Your task to perform on an android device: change the upload size in google photos Image 0: 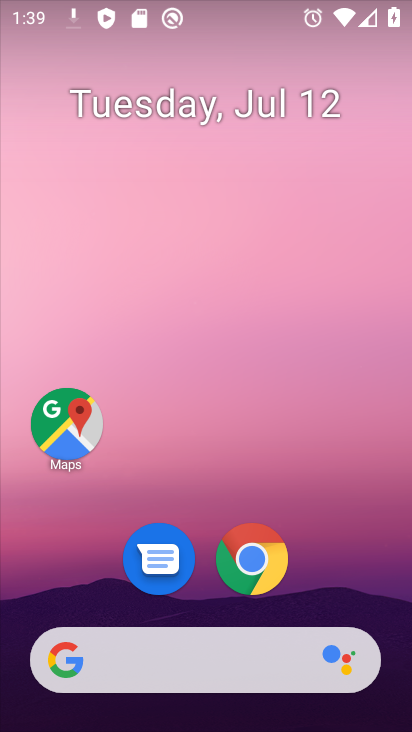
Step 0: drag from (371, 593) to (367, 140)
Your task to perform on an android device: change the upload size in google photos Image 1: 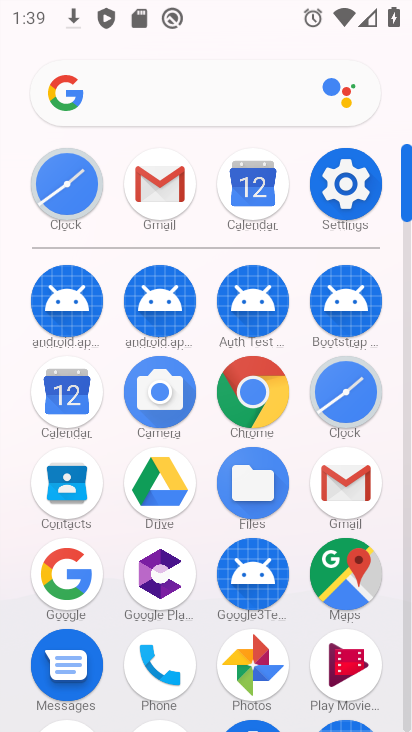
Step 1: click (254, 654)
Your task to perform on an android device: change the upload size in google photos Image 2: 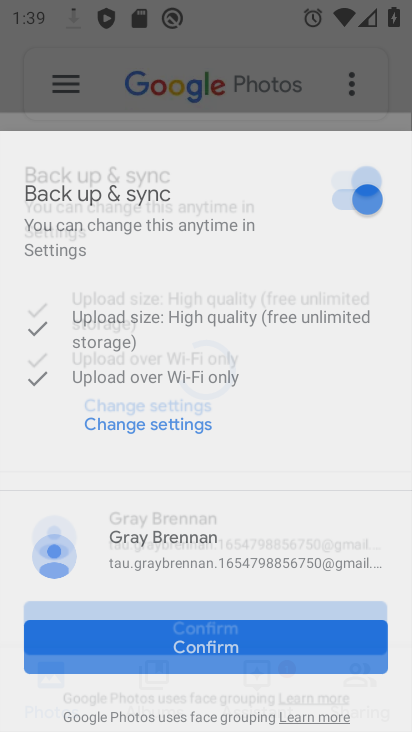
Step 2: click (273, 627)
Your task to perform on an android device: change the upload size in google photos Image 3: 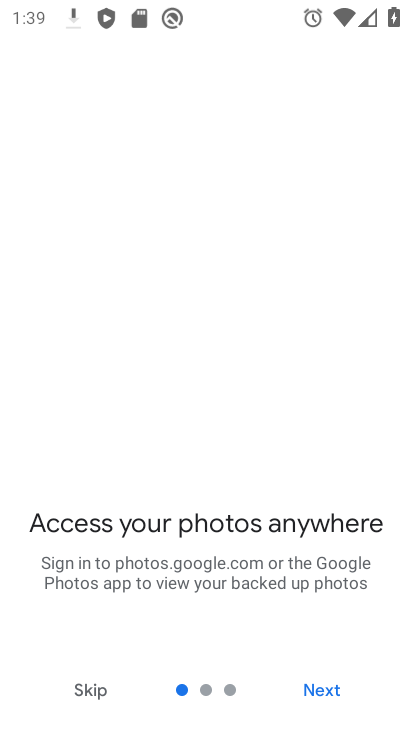
Step 3: click (320, 688)
Your task to perform on an android device: change the upload size in google photos Image 4: 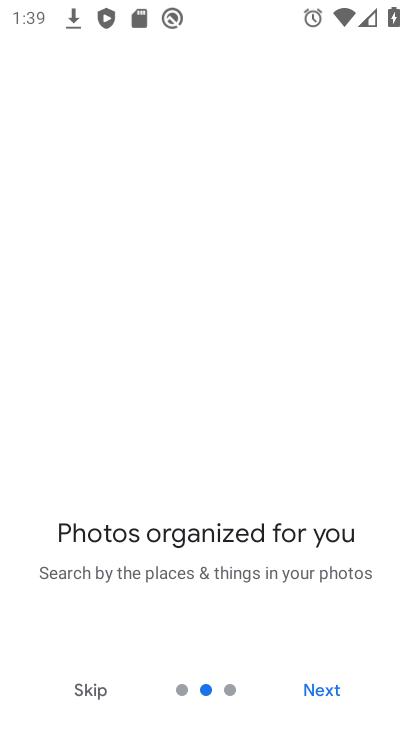
Step 4: click (320, 688)
Your task to perform on an android device: change the upload size in google photos Image 5: 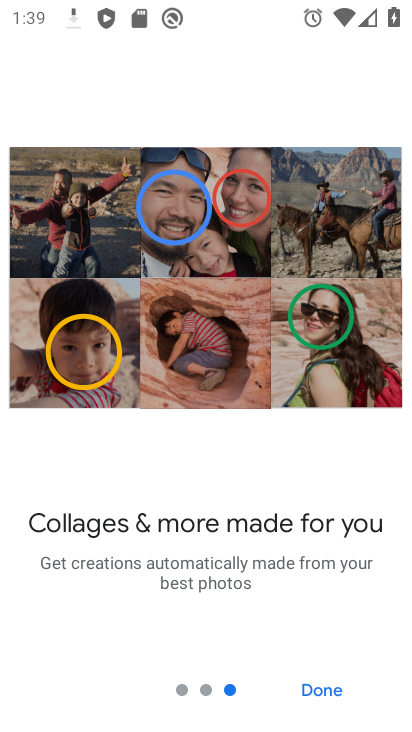
Step 5: click (320, 688)
Your task to perform on an android device: change the upload size in google photos Image 6: 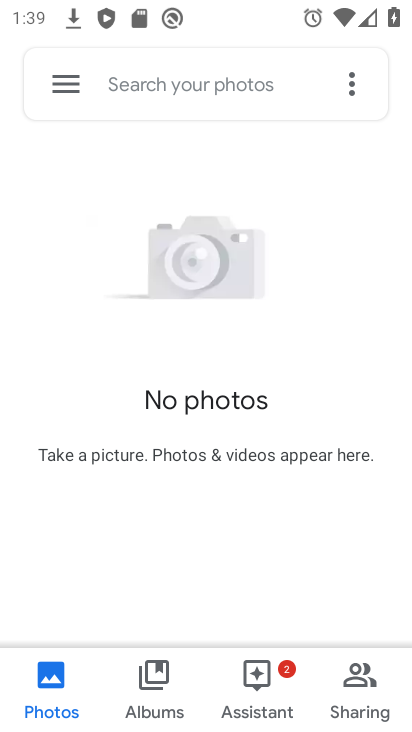
Step 6: click (76, 88)
Your task to perform on an android device: change the upload size in google photos Image 7: 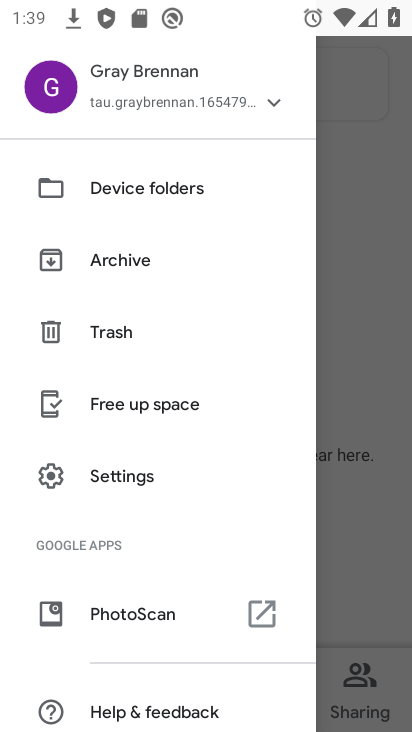
Step 7: click (175, 483)
Your task to perform on an android device: change the upload size in google photos Image 8: 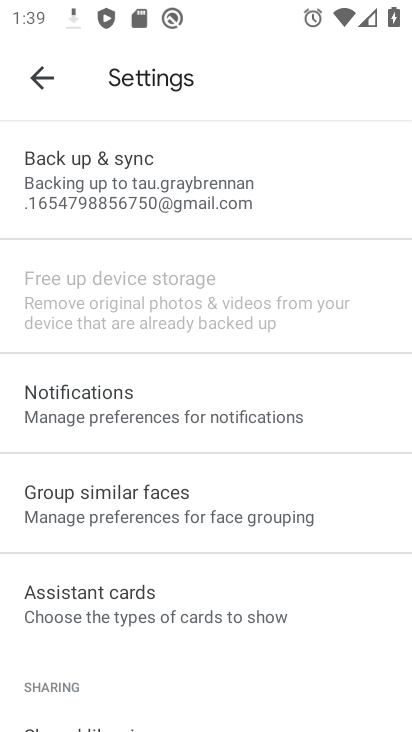
Step 8: drag from (333, 480) to (311, 264)
Your task to perform on an android device: change the upload size in google photos Image 9: 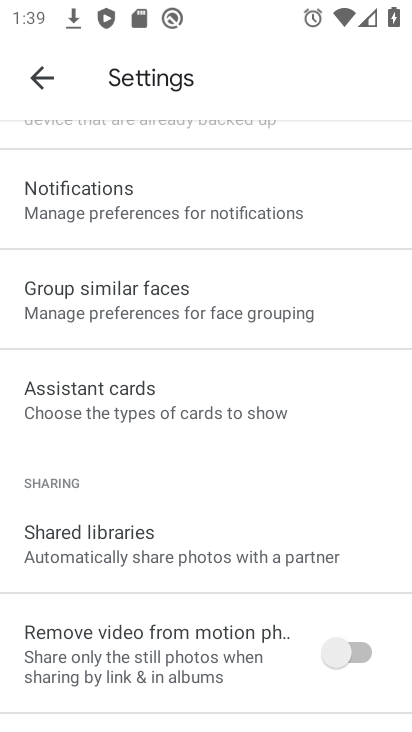
Step 9: drag from (329, 449) to (326, 249)
Your task to perform on an android device: change the upload size in google photos Image 10: 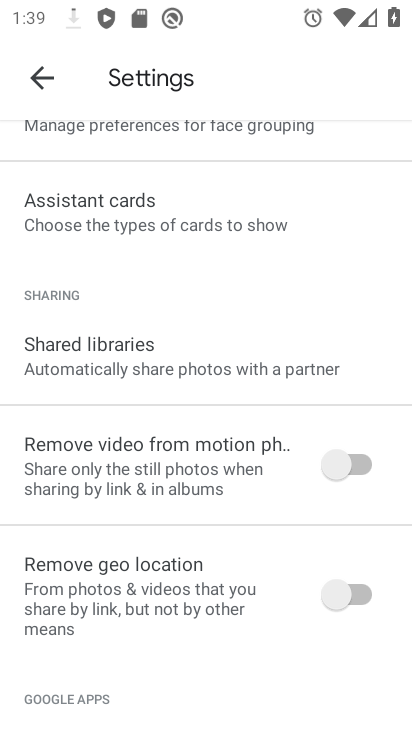
Step 10: drag from (289, 519) to (286, 305)
Your task to perform on an android device: change the upload size in google photos Image 11: 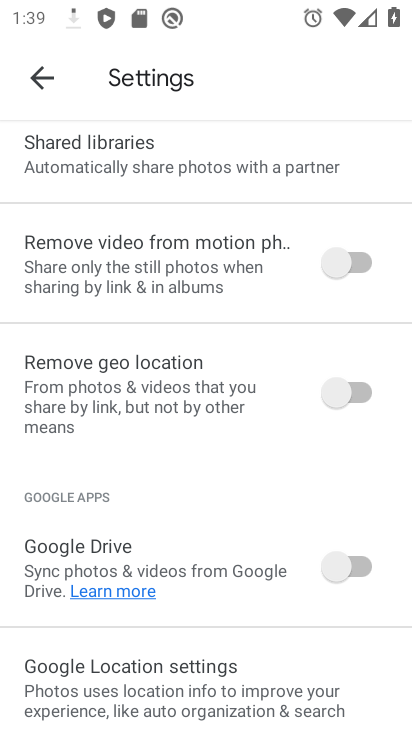
Step 11: drag from (279, 262) to (277, 393)
Your task to perform on an android device: change the upload size in google photos Image 12: 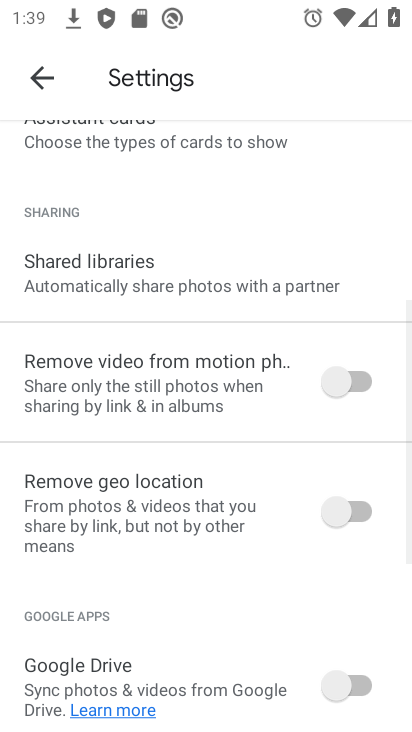
Step 12: drag from (261, 213) to (264, 374)
Your task to perform on an android device: change the upload size in google photos Image 13: 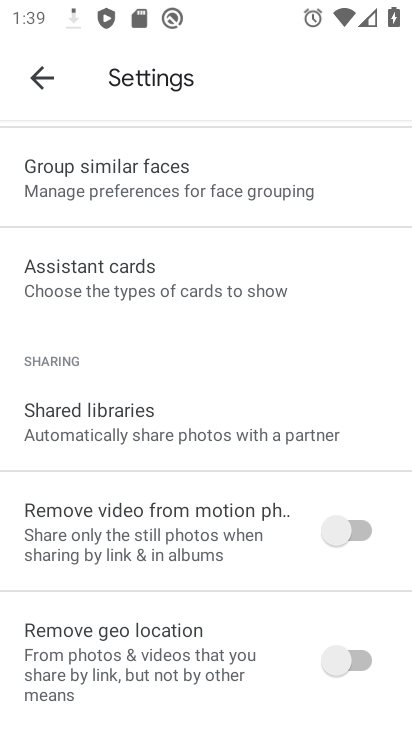
Step 13: drag from (289, 151) to (289, 396)
Your task to perform on an android device: change the upload size in google photos Image 14: 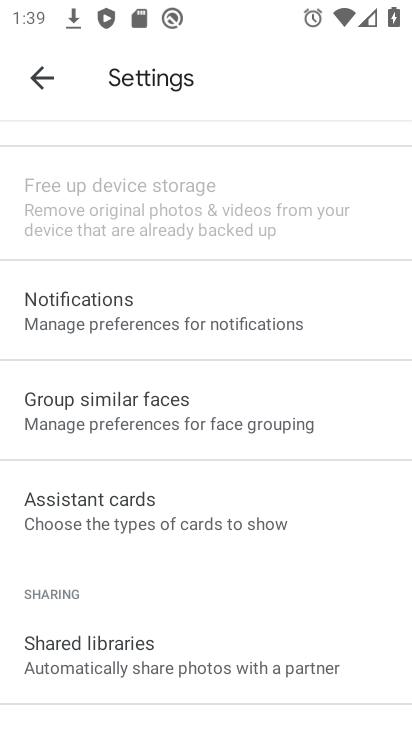
Step 14: drag from (251, 166) to (249, 391)
Your task to perform on an android device: change the upload size in google photos Image 15: 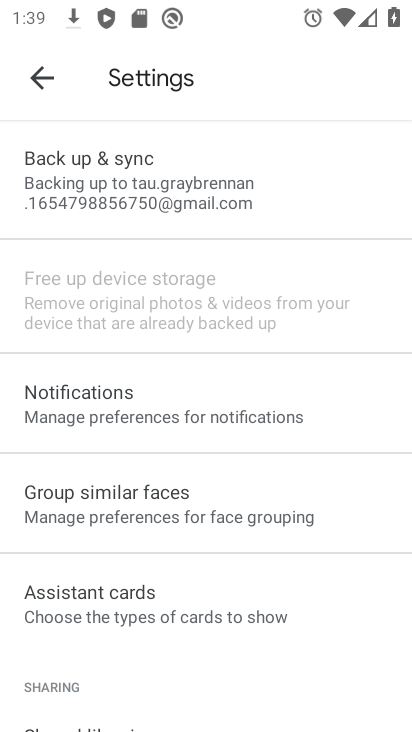
Step 15: click (154, 165)
Your task to perform on an android device: change the upload size in google photos Image 16: 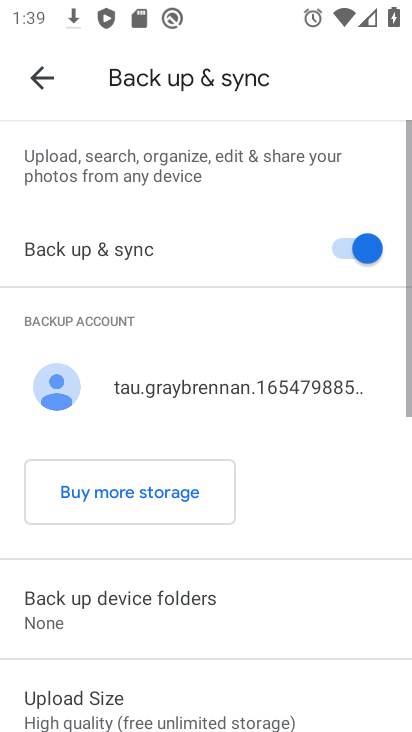
Step 16: drag from (264, 451) to (270, 253)
Your task to perform on an android device: change the upload size in google photos Image 17: 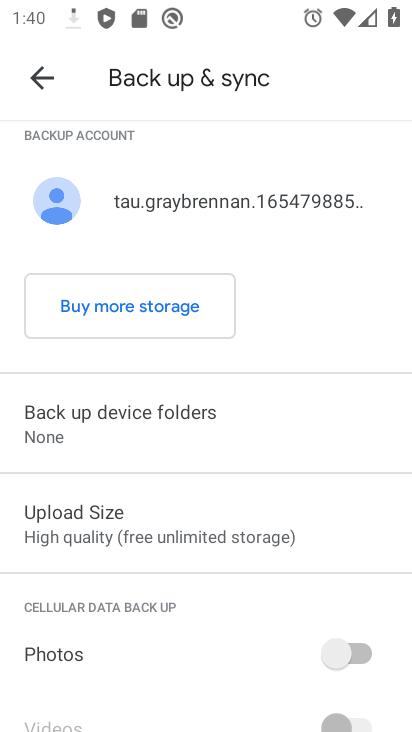
Step 17: drag from (278, 476) to (282, 221)
Your task to perform on an android device: change the upload size in google photos Image 18: 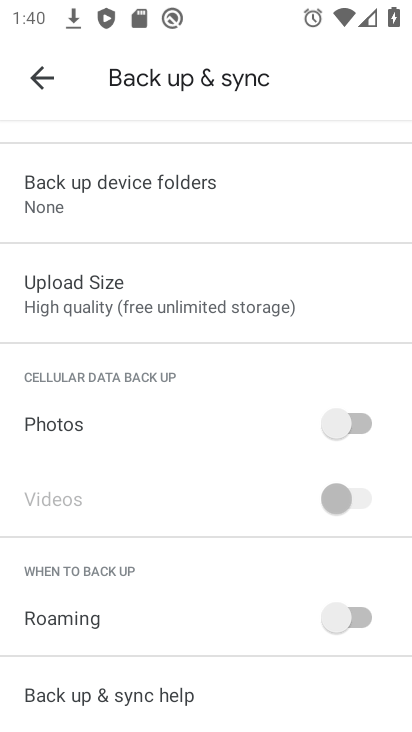
Step 18: click (280, 298)
Your task to perform on an android device: change the upload size in google photos Image 19: 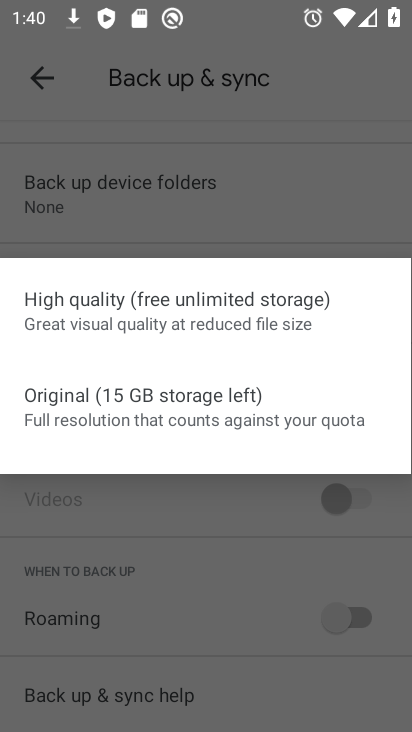
Step 19: click (264, 414)
Your task to perform on an android device: change the upload size in google photos Image 20: 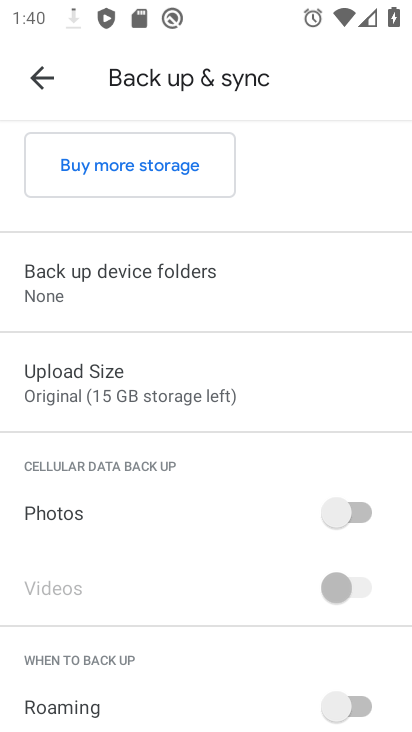
Step 20: task complete